Your task to perform on an android device: Go to Google maps Image 0: 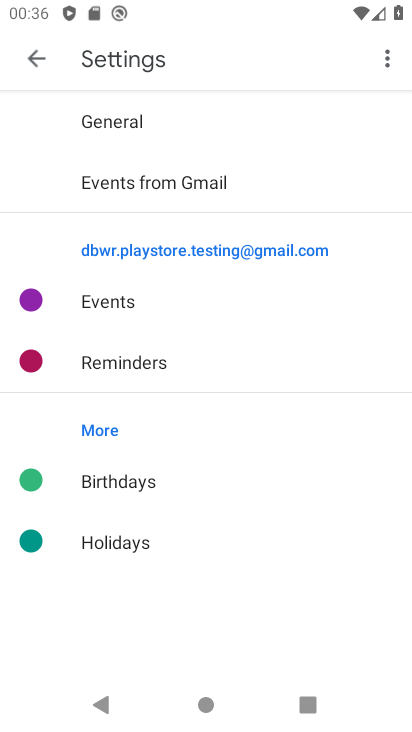
Step 0: press home button
Your task to perform on an android device: Go to Google maps Image 1: 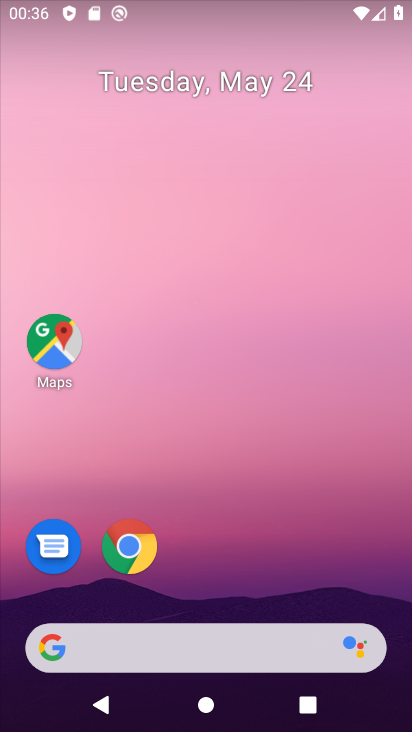
Step 1: drag from (287, 586) to (305, 21)
Your task to perform on an android device: Go to Google maps Image 2: 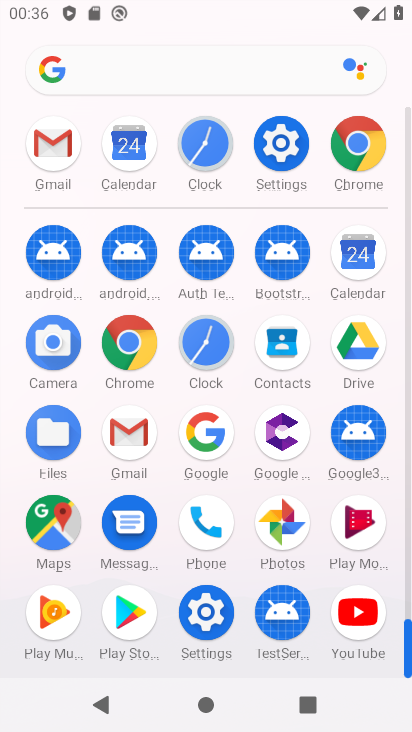
Step 2: click (54, 513)
Your task to perform on an android device: Go to Google maps Image 3: 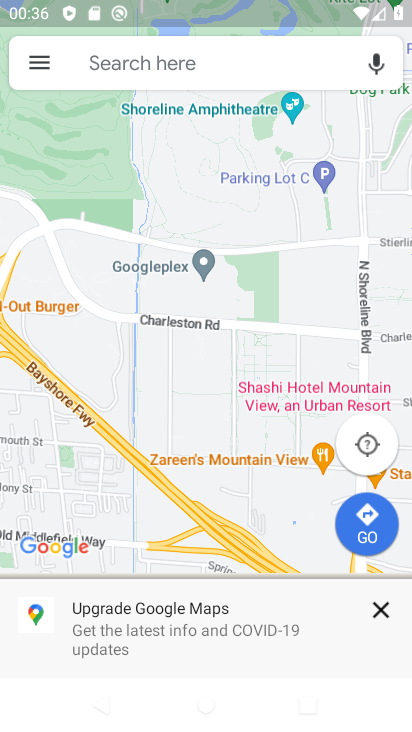
Step 3: task complete